Your task to perform on an android device: turn off picture-in-picture Image 0: 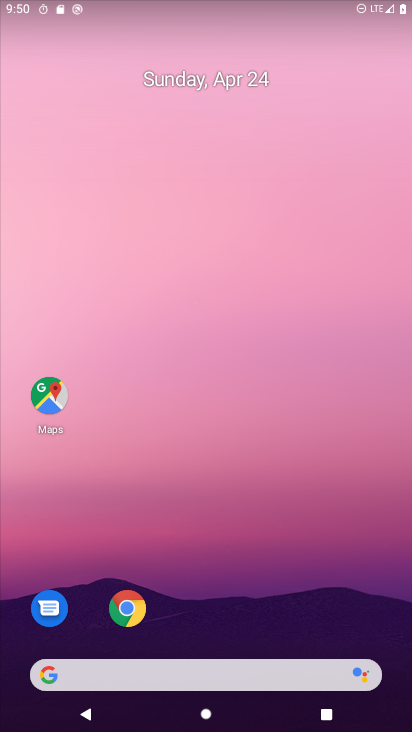
Step 0: click (122, 608)
Your task to perform on an android device: turn off picture-in-picture Image 1: 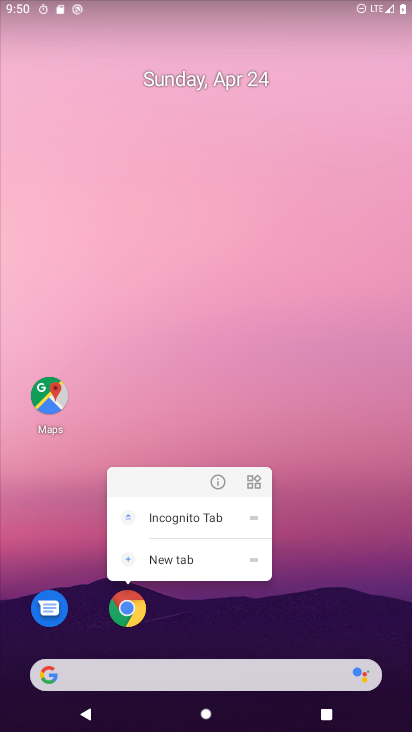
Step 1: click (214, 471)
Your task to perform on an android device: turn off picture-in-picture Image 2: 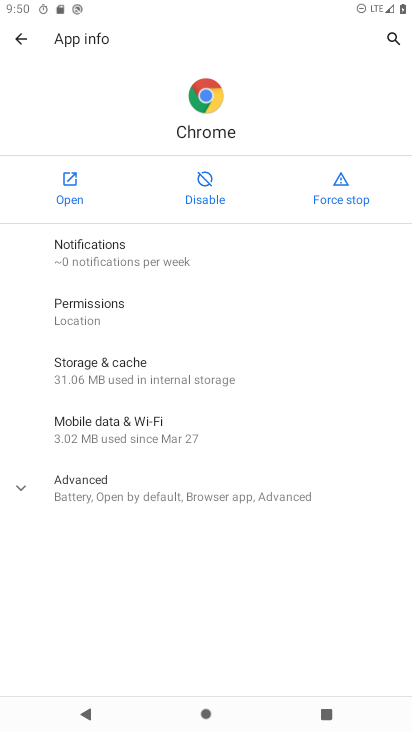
Step 2: click (21, 487)
Your task to perform on an android device: turn off picture-in-picture Image 3: 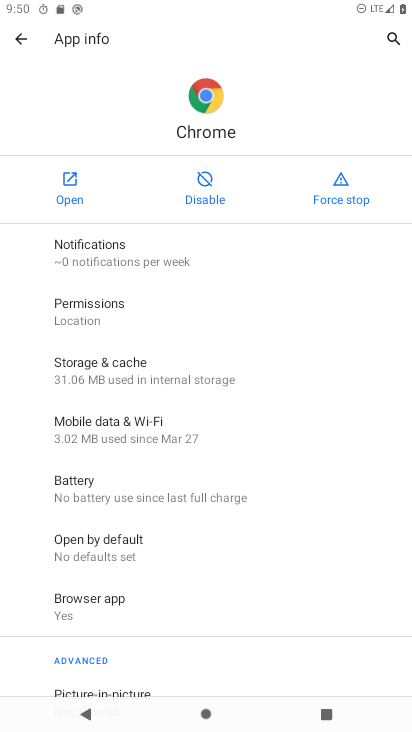
Step 3: drag from (223, 562) to (255, 302)
Your task to perform on an android device: turn off picture-in-picture Image 4: 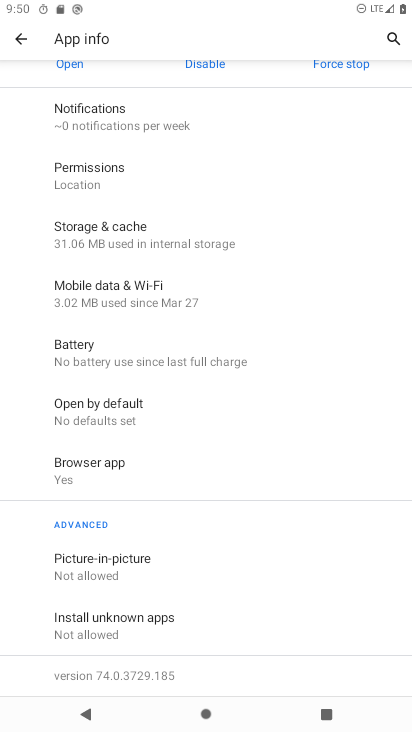
Step 4: click (171, 566)
Your task to perform on an android device: turn off picture-in-picture Image 5: 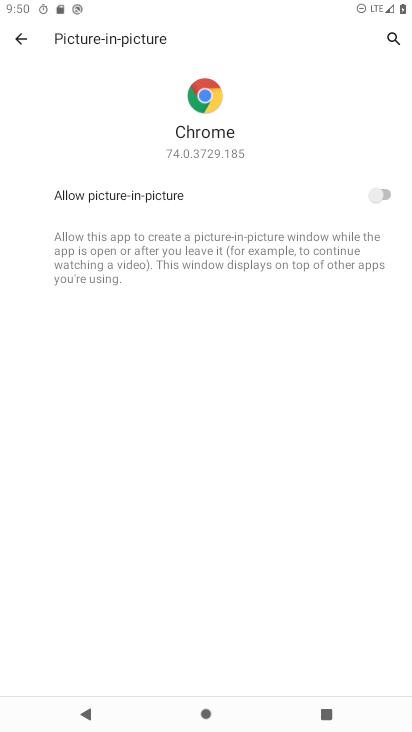
Step 5: task complete